Your task to perform on an android device: Go to Android settings Image 0: 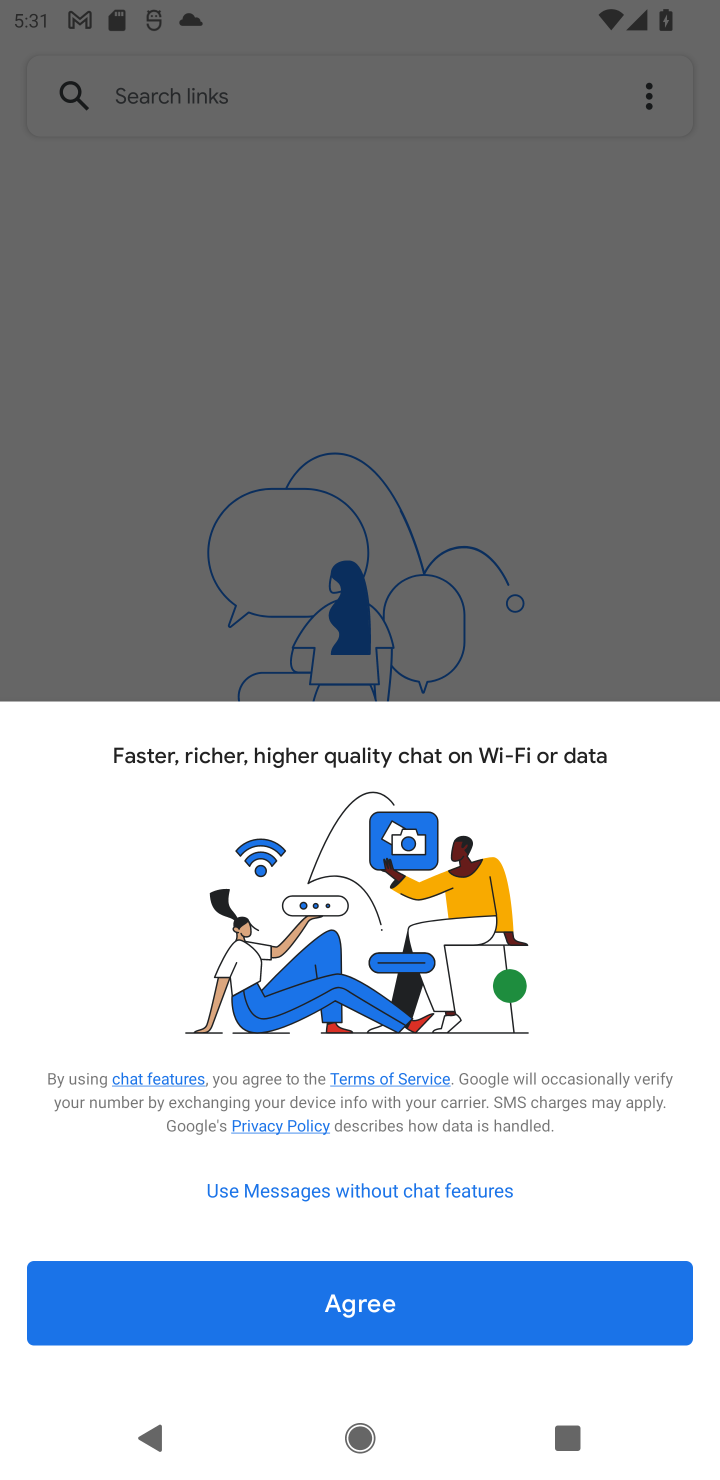
Step 0: press home button
Your task to perform on an android device: Go to Android settings Image 1: 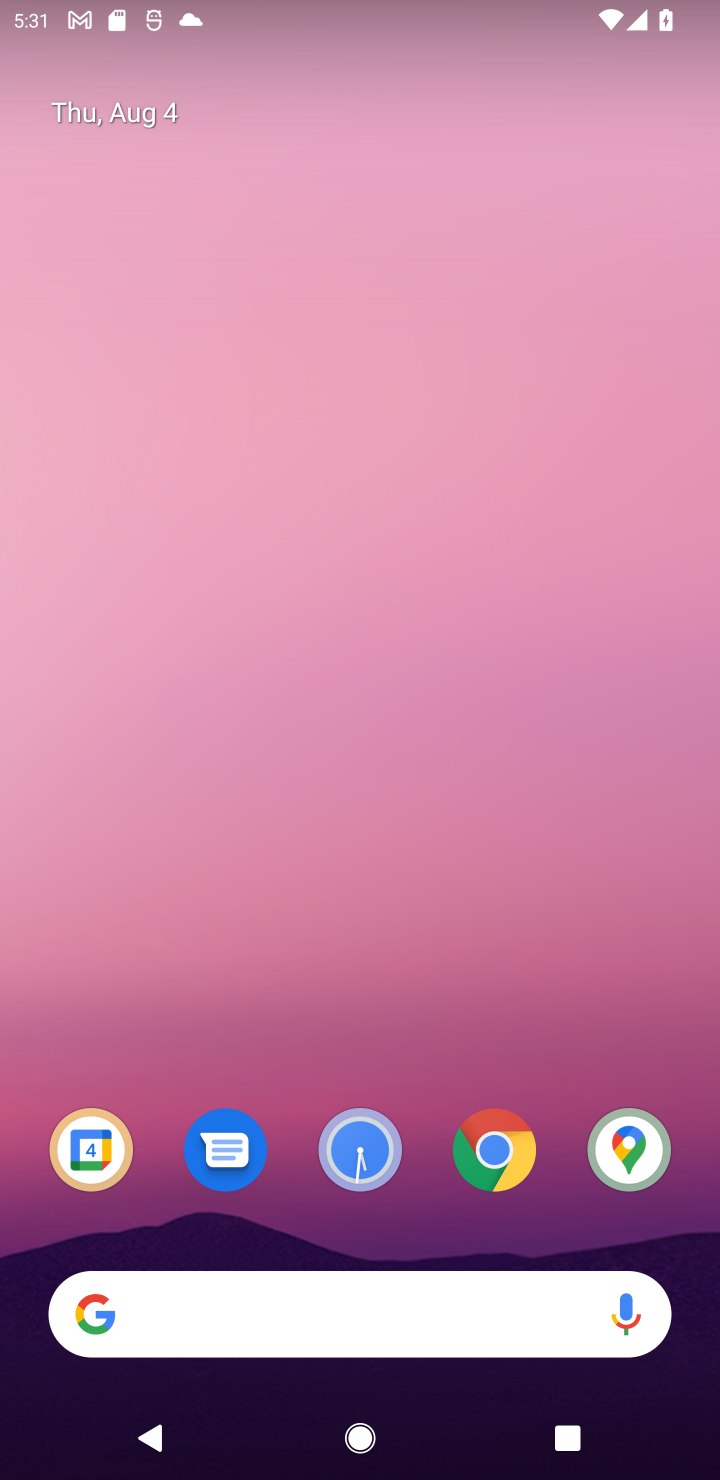
Step 1: drag from (341, 1245) to (485, 123)
Your task to perform on an android device: Go to Android settings Image 2: 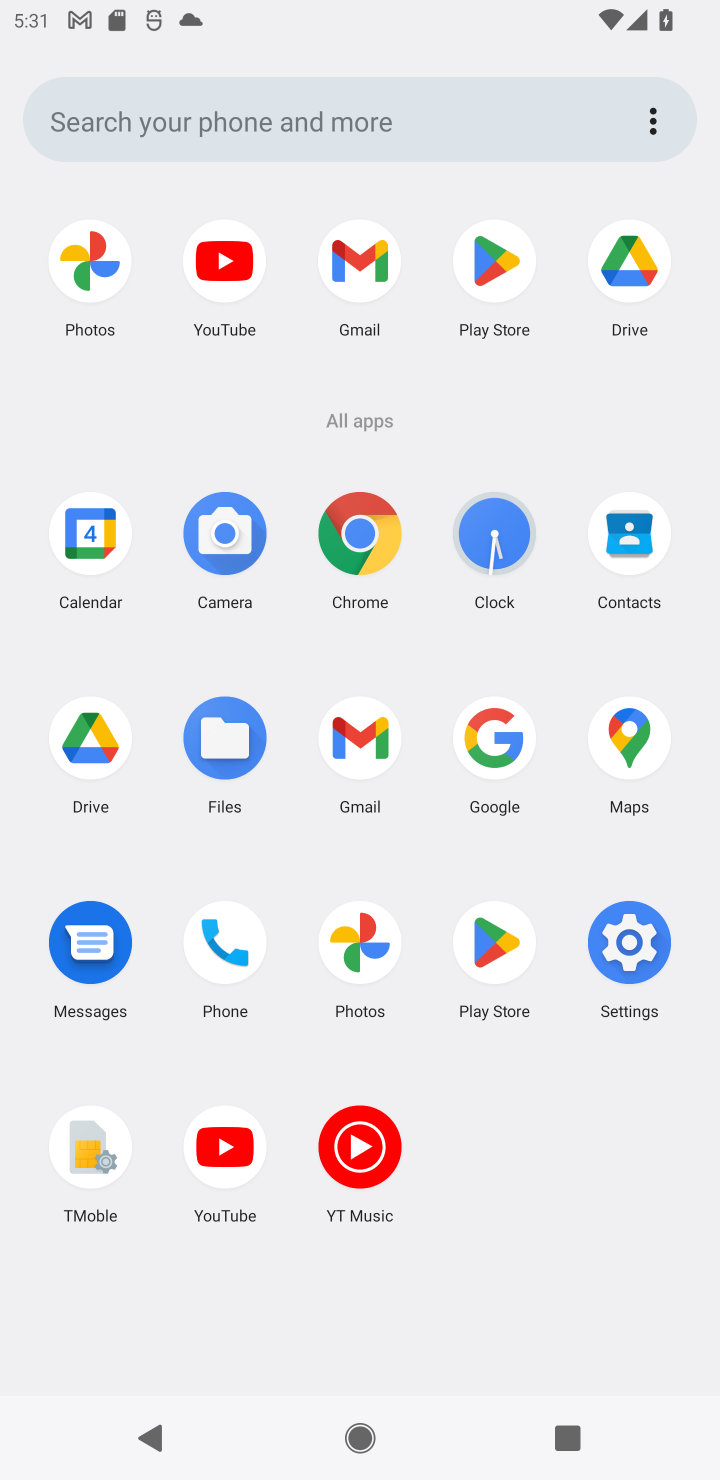
Step 2: click (624, 969)
Your task to perform on an android device: Go to Android settings Image 3: 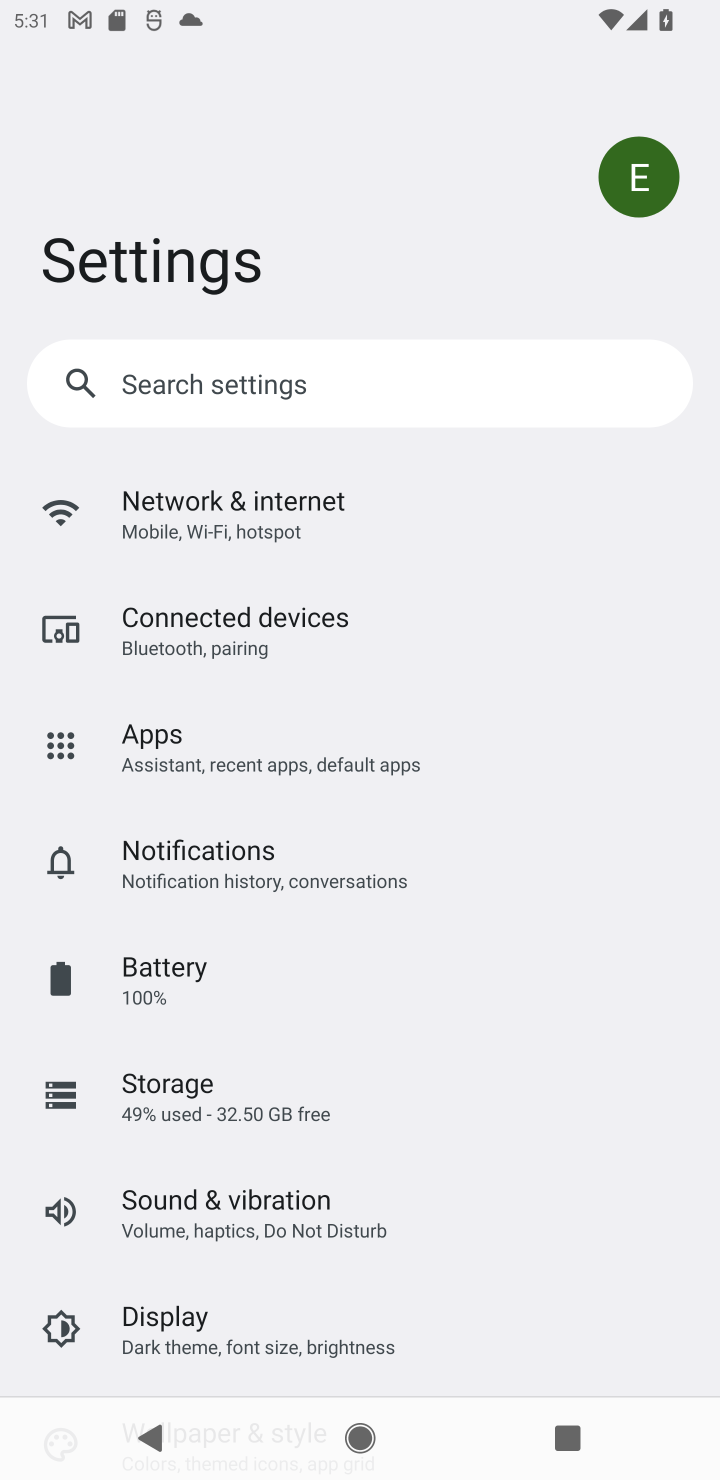
Step 3: drag from (247, 1166) to (249, 539)
Your task to perform on an android device: Go to Android settings Image 4: 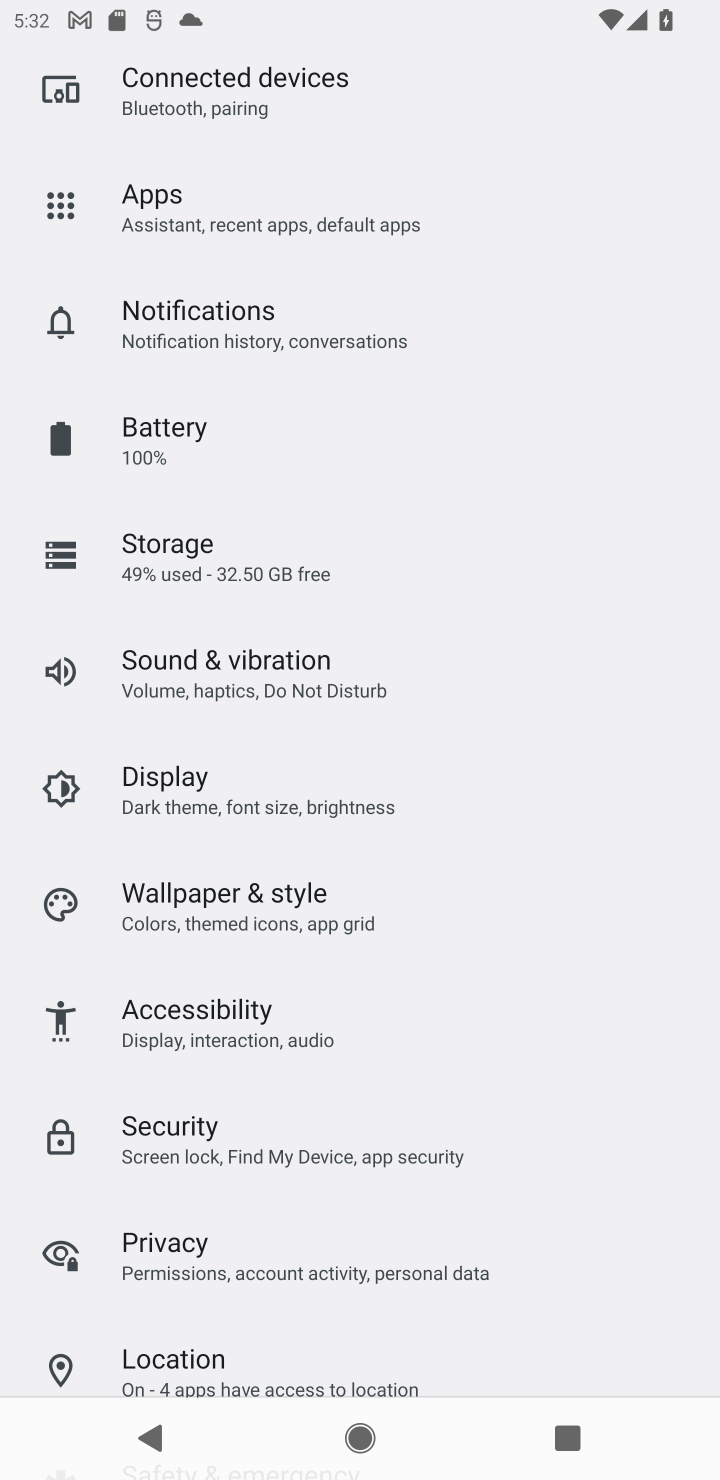
Step 4: drag from (238, 1082) to (272, 306)
Your task to perform on an android device: Go to Android settings Image 5: 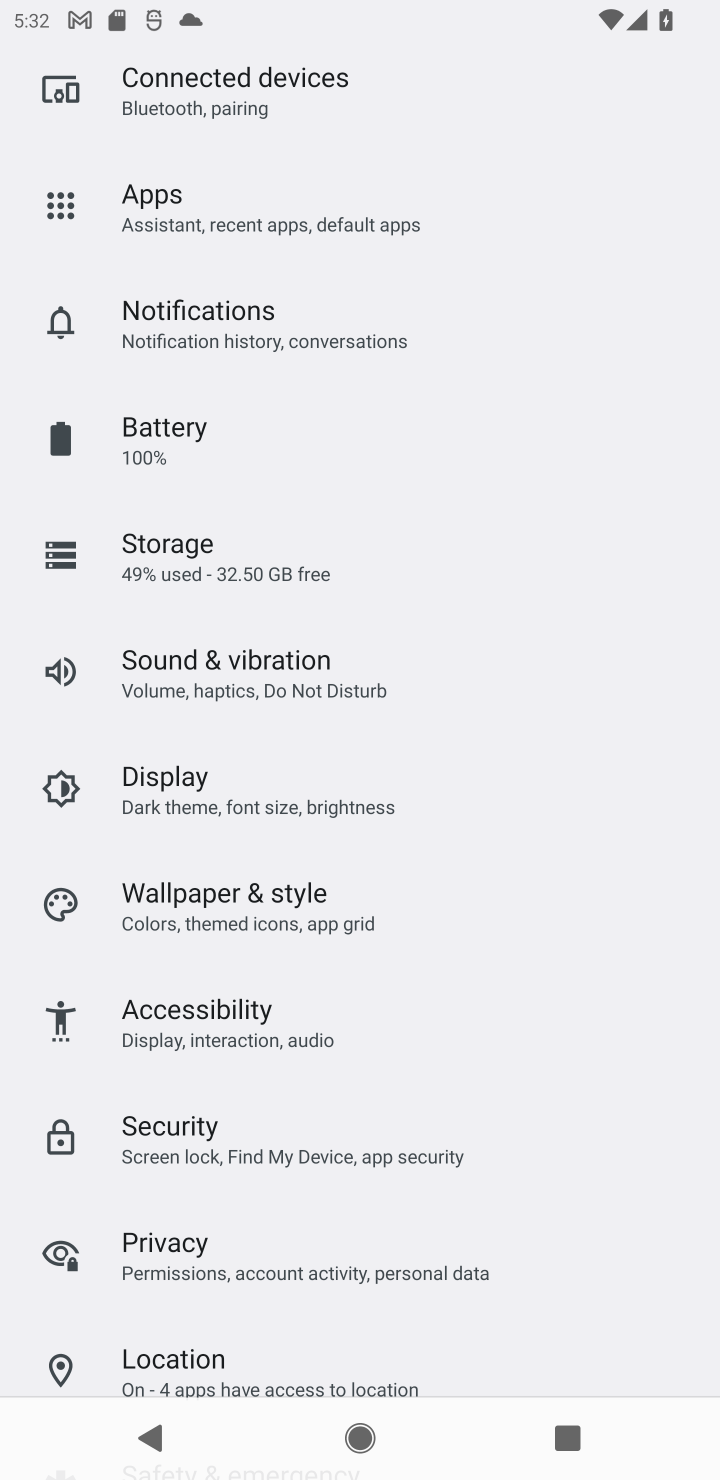
Step 5: drag from (230, 1246) to (297, 458)
Your task to perform on an android device: Go to Android settings Image 6: 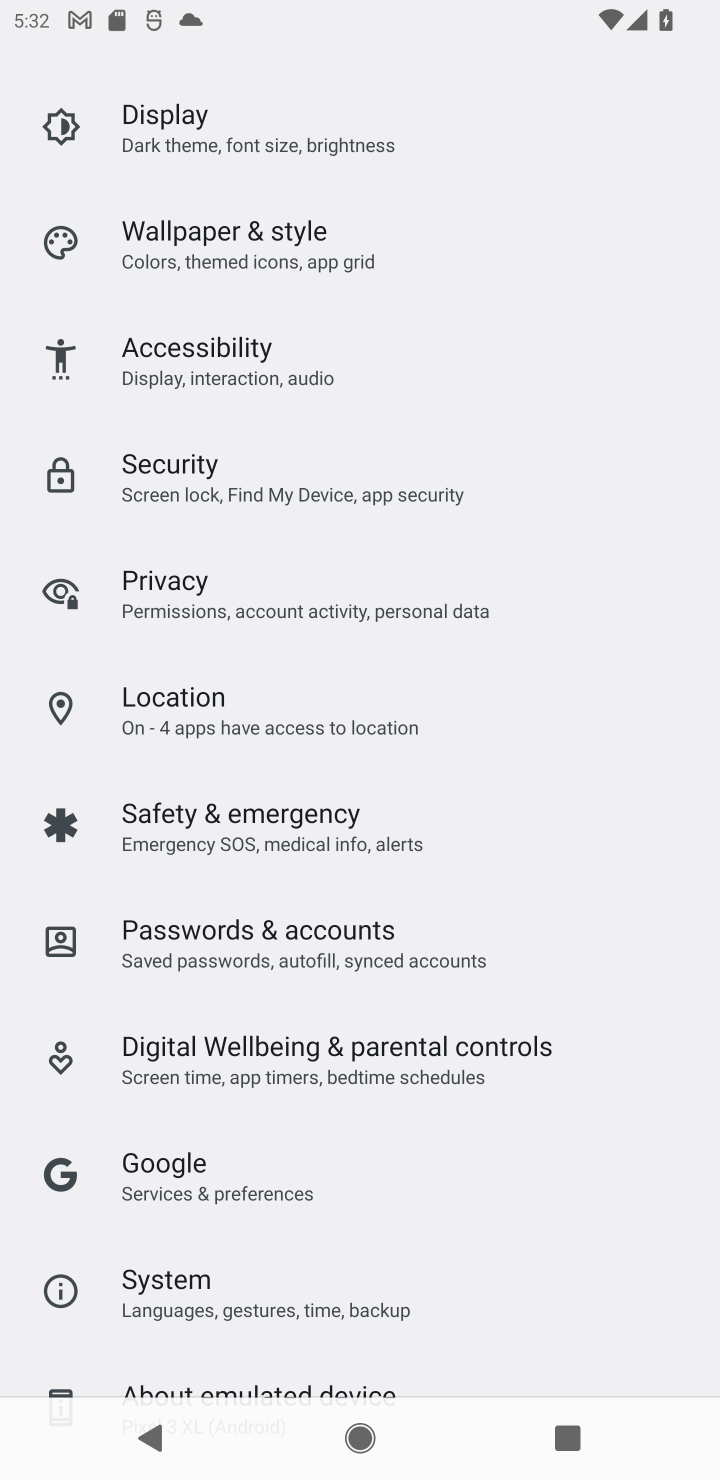
Step 6: drag from (305, 1172) to (320, 403)
Your task to perform on an android device: Go to Android settings Image 7: 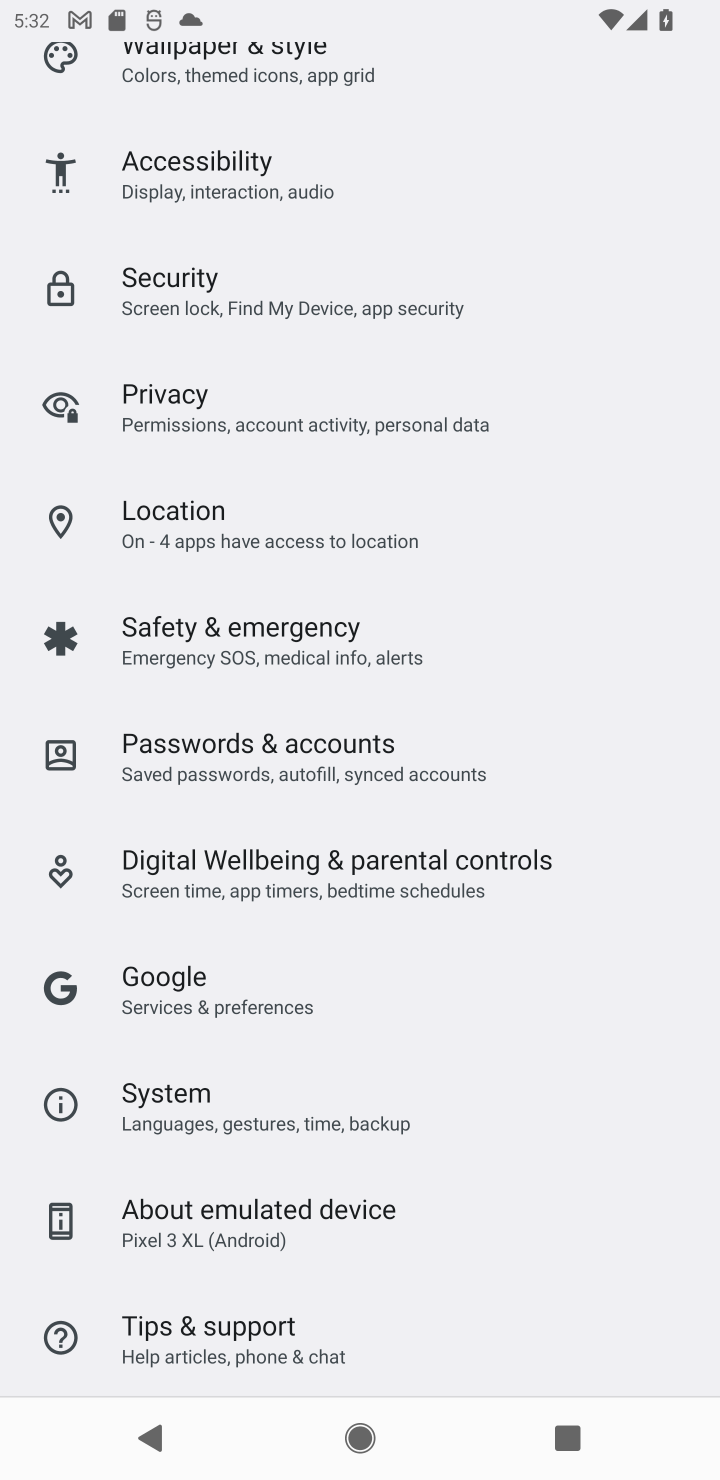
Step 7: drag from (280, 1257) to (434, 377)
Your task to perform on an android device: Go to Android settings Image 8: 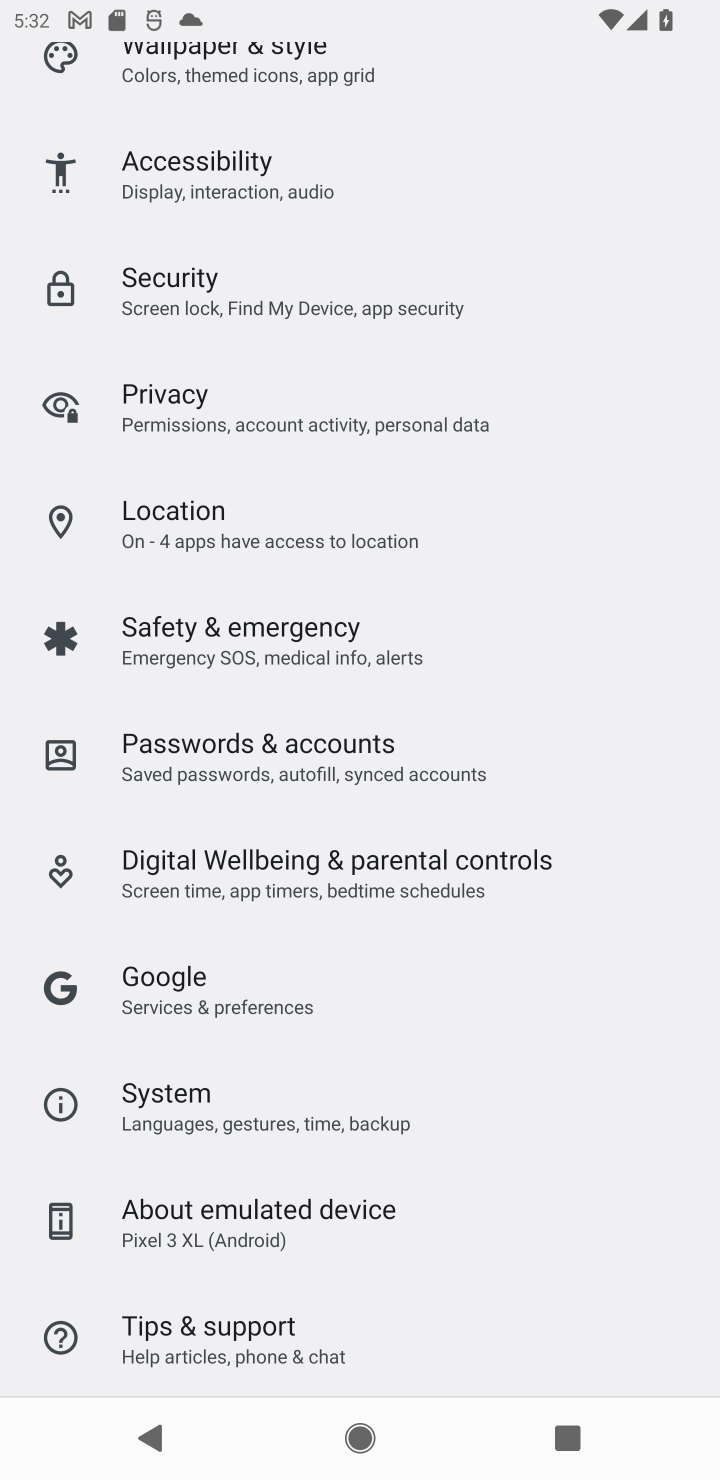
Step 8: click (209, 1223)
Your task to perform on an android device: Go to Android settings Image 9: 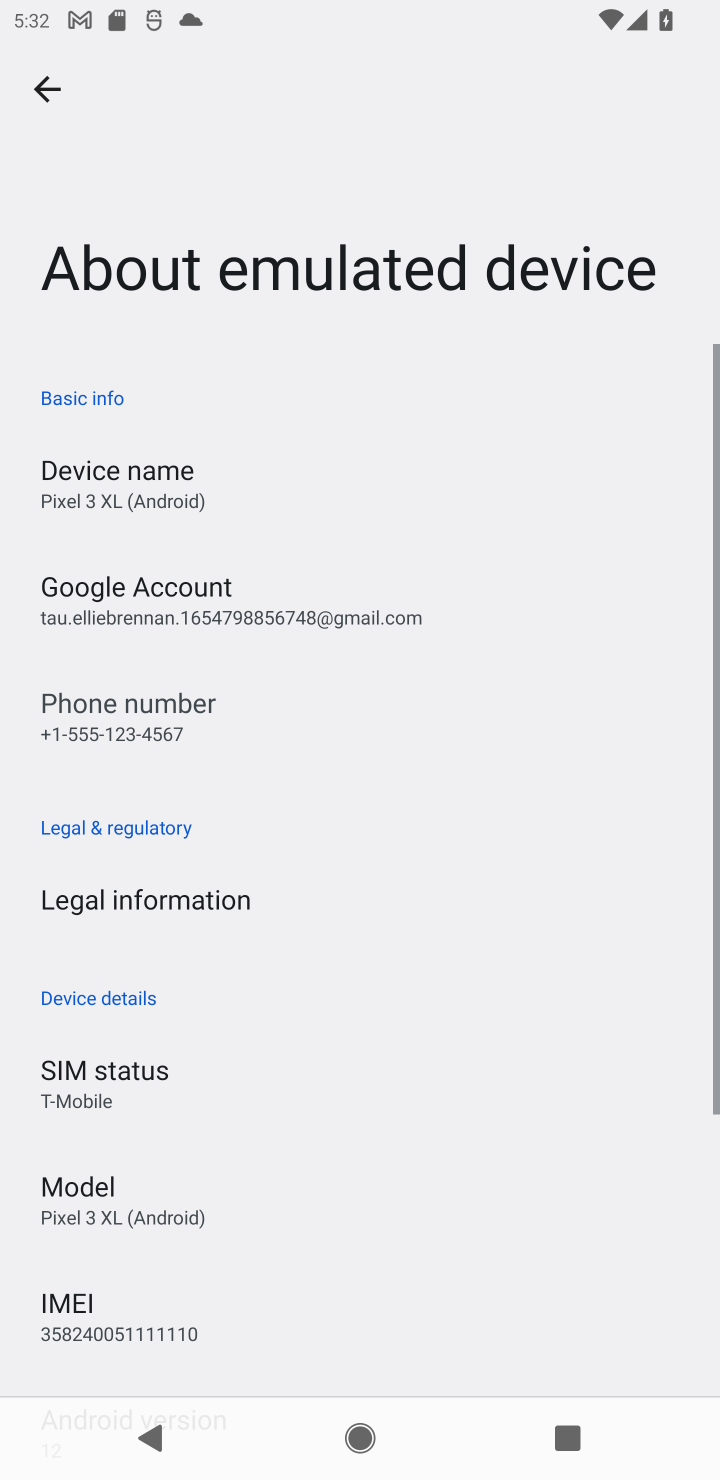
Step 9: drag from (231, 1200) to (250, 763)
Your task to perform on an android device: Go to Android settings Image 10: 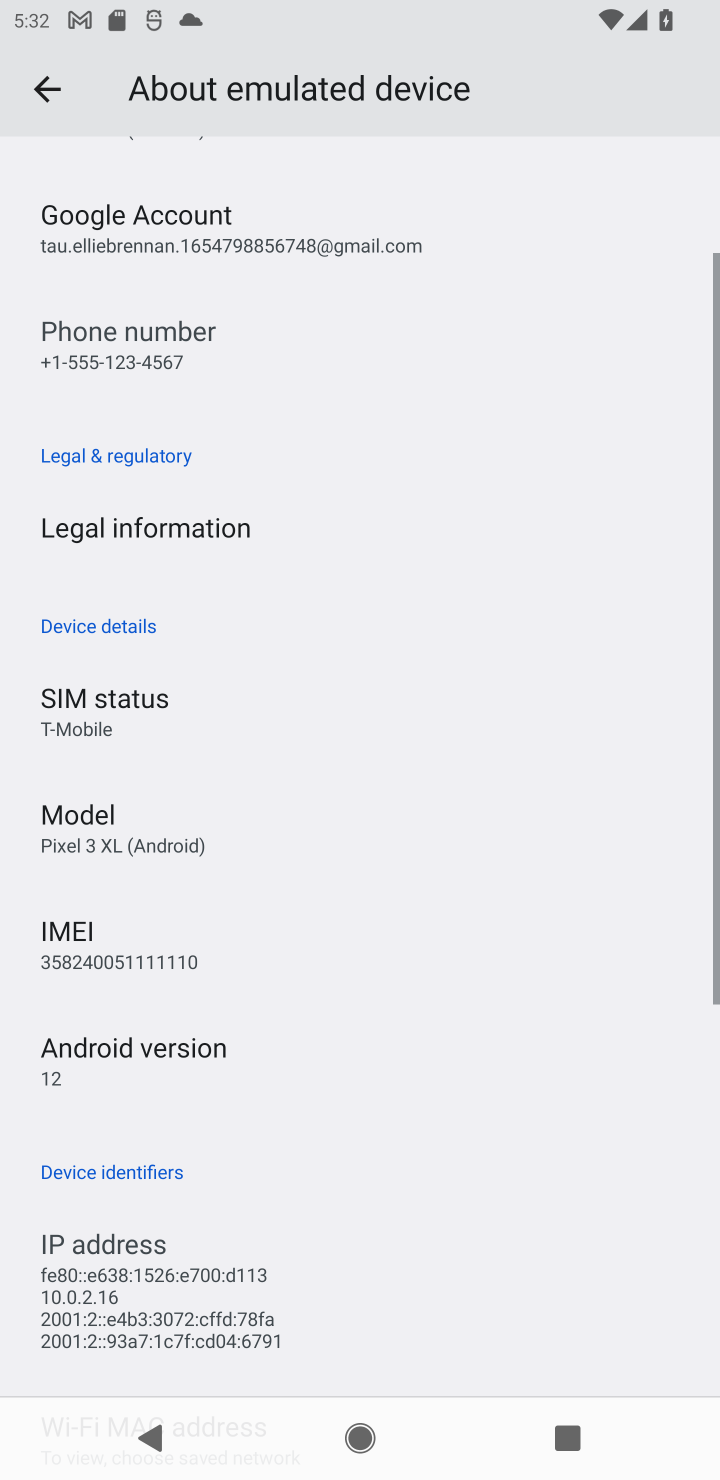
Step 10: click (131, 1076)
Your task to perform on an android device: Go to Android settings Image 11: 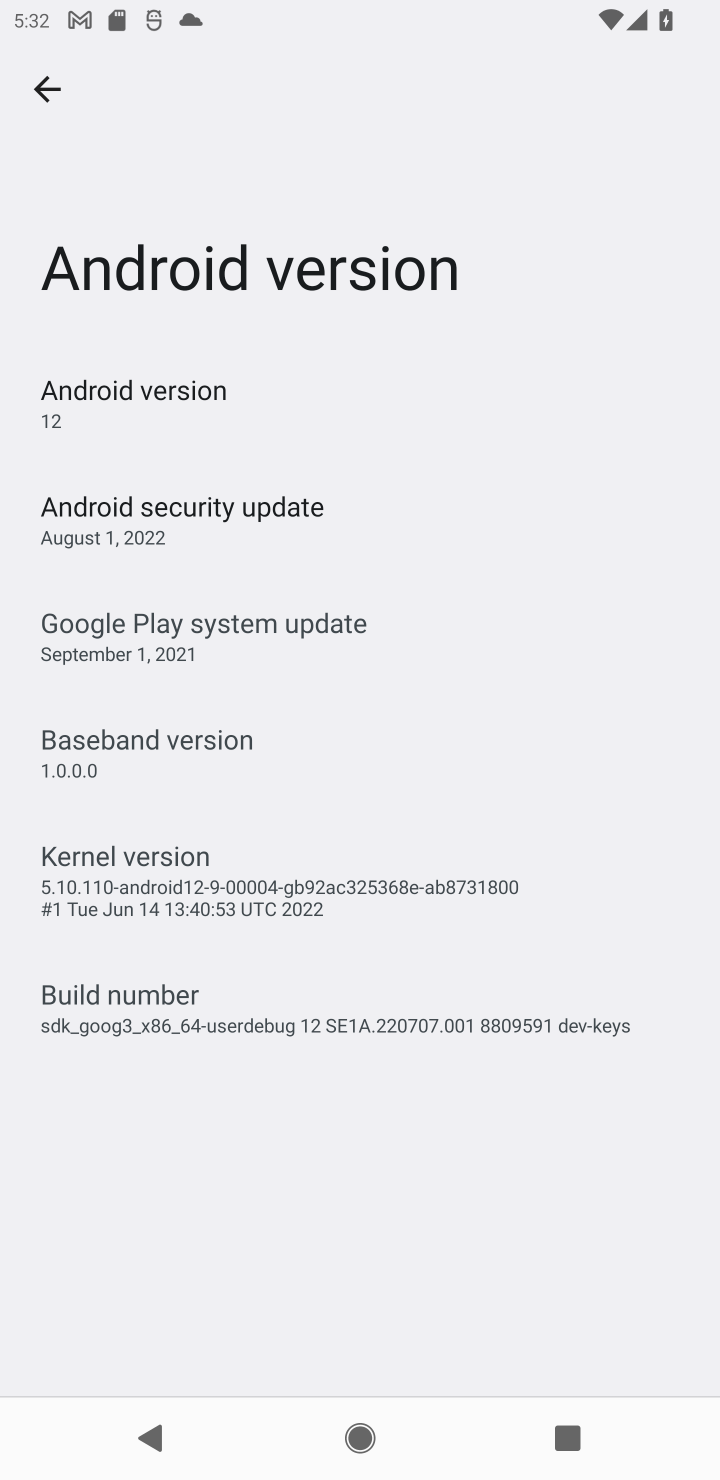
Step 11: click (147, 1070)
Your task to perform on an android device: Go to Android settings Image 12: 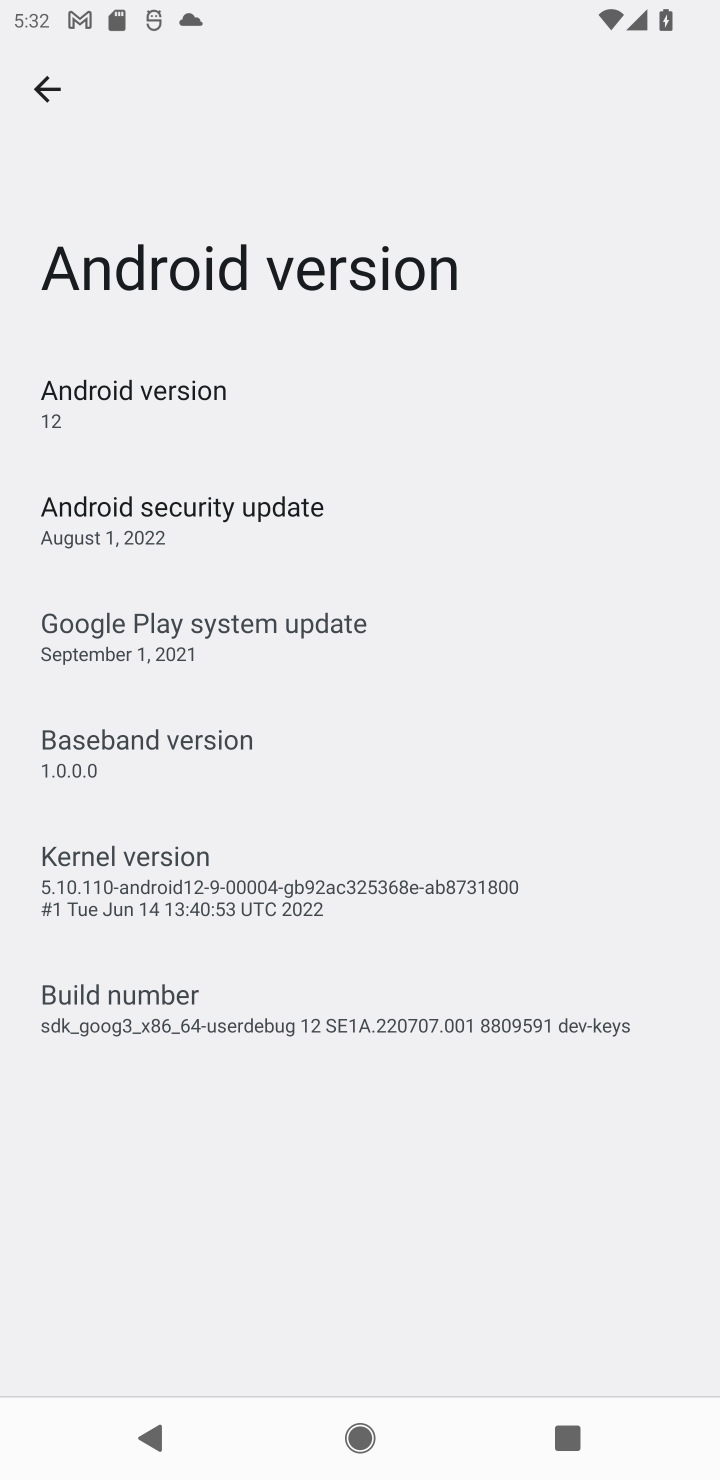
Step 12: task complete